Your task to perform on an android device: toggle sleep mode Image 0: 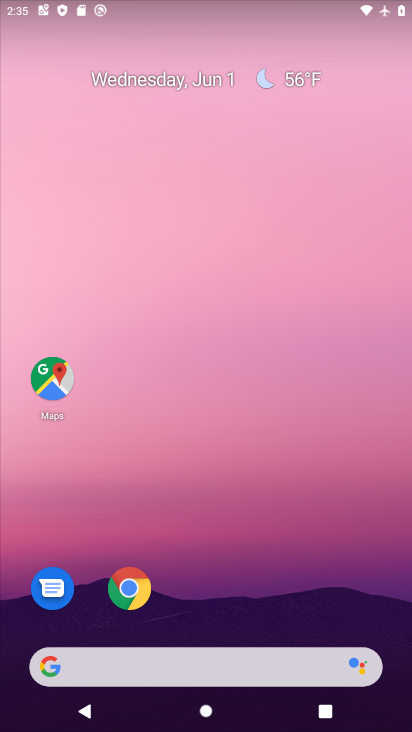
Step 0: drag from (281, 588) to (180, 5)
Your task to perform on an android device: toggle sleep mode Image 1: 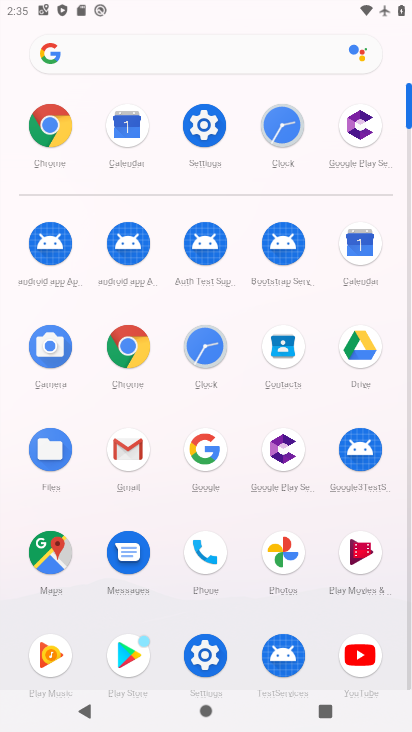
Step 1: click (209, 122)
Your task to perform on an android device: toggle sleep mode Image 2: 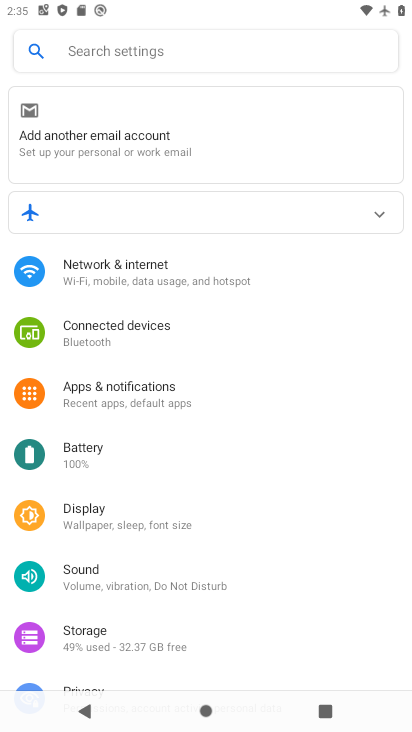
Step 2: click (144, 503)
Your task to perform on an android device: toggle sleep mode Image 3: 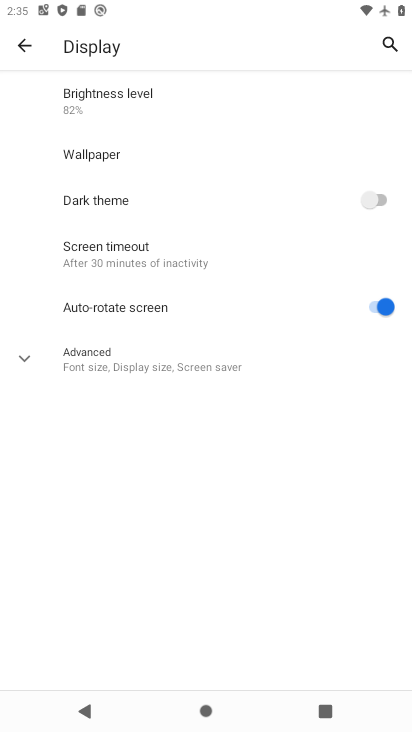
Step 3: task complete